Your task to perform on an android device: manage bookmarks in the chrome app Image 0: 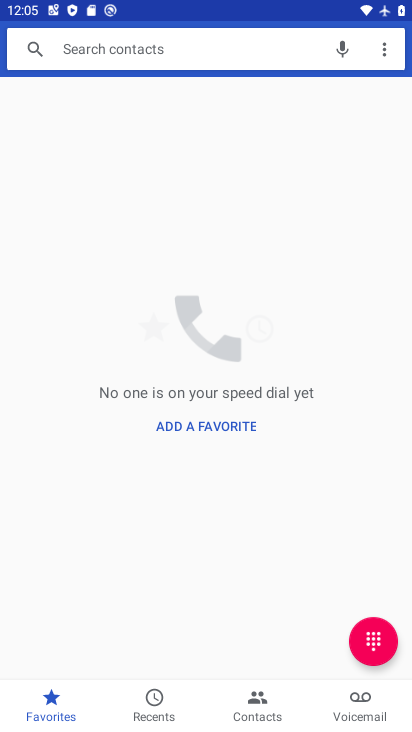
Step 0: press home button
Your task to perform on an android device: manage bookmarks in the chrome app Image 1: 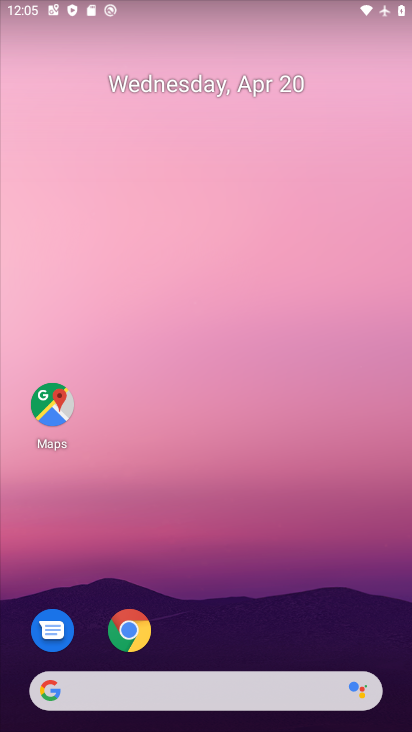
Step 1: drag from (174, 690) to (301, 239)
Your task to perform on an android device: manage bookmarks in the chrome app Image 2: 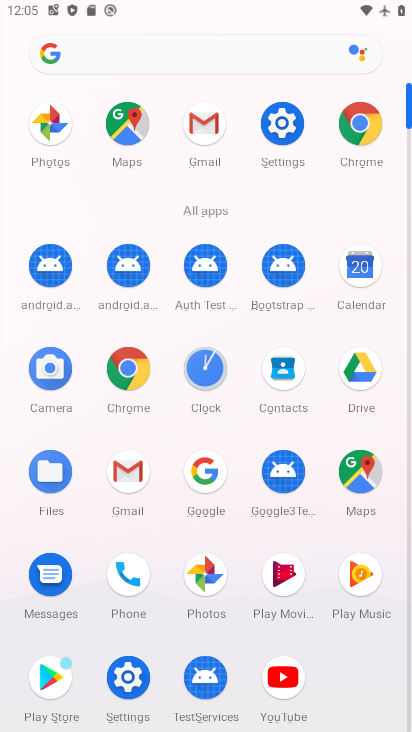
Step 2: click (361, 128)
Your task to perform on an android device: manage bookmarks in the chrome app Image 3: 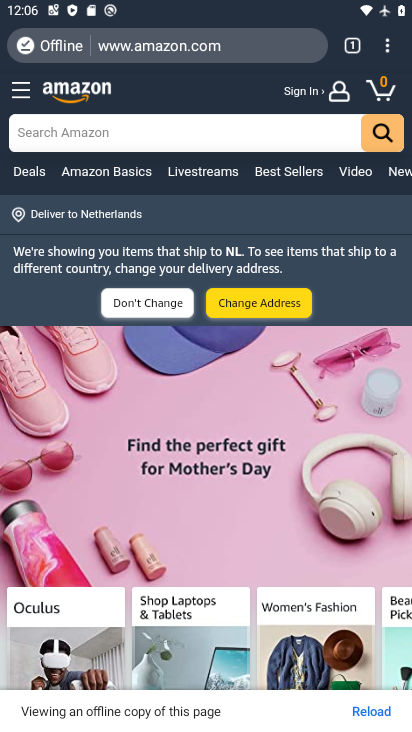
Step 3: click (387, 55)
Your task to perform on an android device: manage bookmarks in the chrome app Image 4: 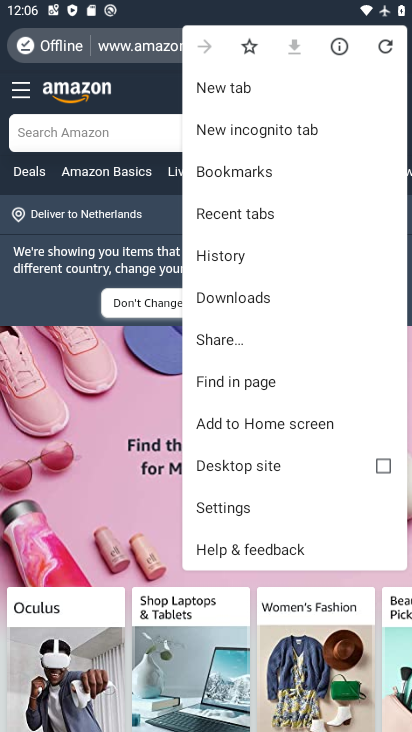
Step 4: click (257, 166)
Your task to perform on an android device: manage bookmarks in the chrome app Image 5: 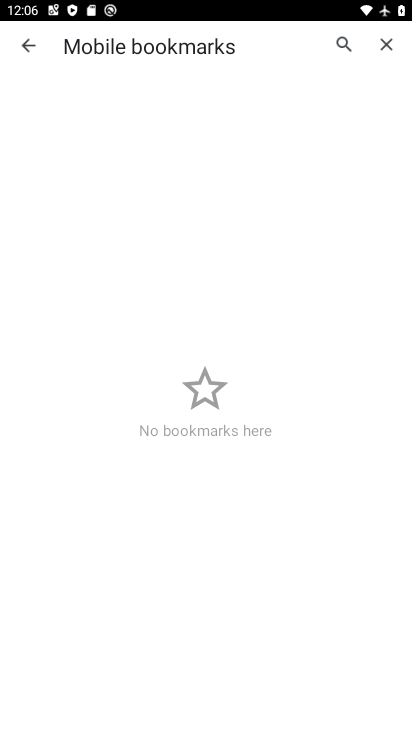
Step 5: task complete